Your task to perform on an android device: turn notification dots off Image 0: 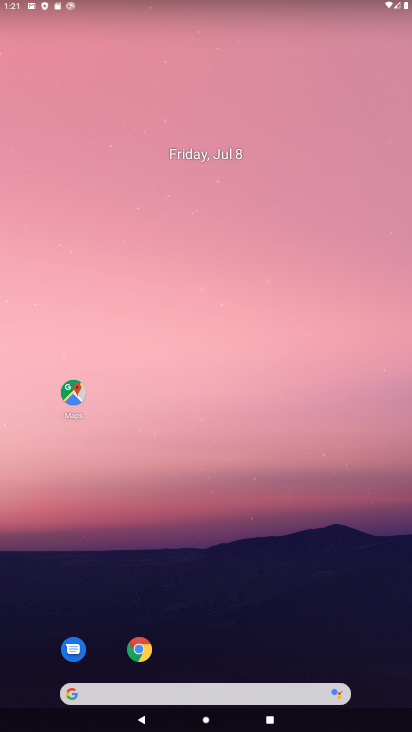
Step 0: drag from (292, 600) to (263, 27)
Your task to perform on an android device: turn notification dots off Image 1: 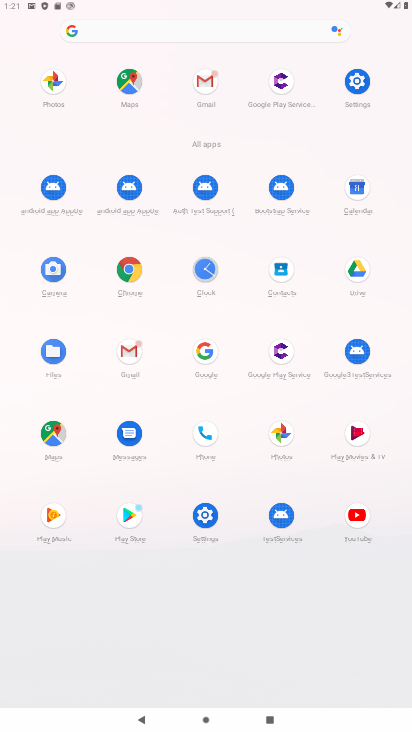
Step 1: click (352, 83)
Your task to perform on an android device: turn notification dots off Image 2: 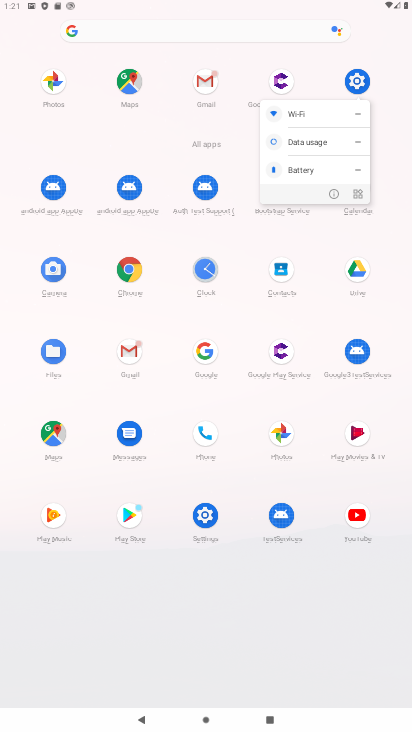
Step 2: click (362, 78)
Your task to perform on an android device: turn notification dots off Image 3: 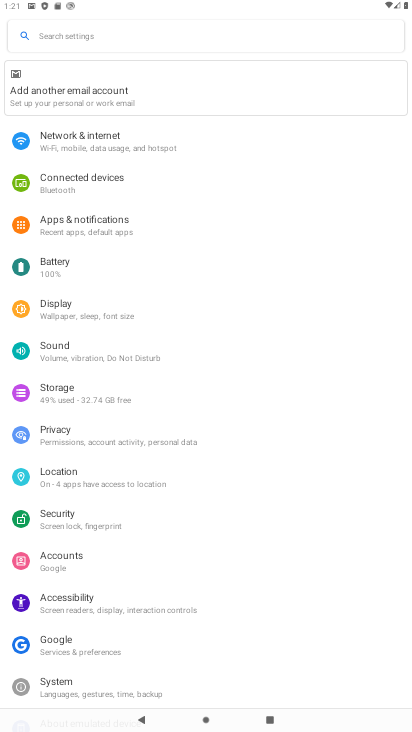
Step 3: click (94, 227)
Your task to perform on an android device: turn notification dots off Image 4: 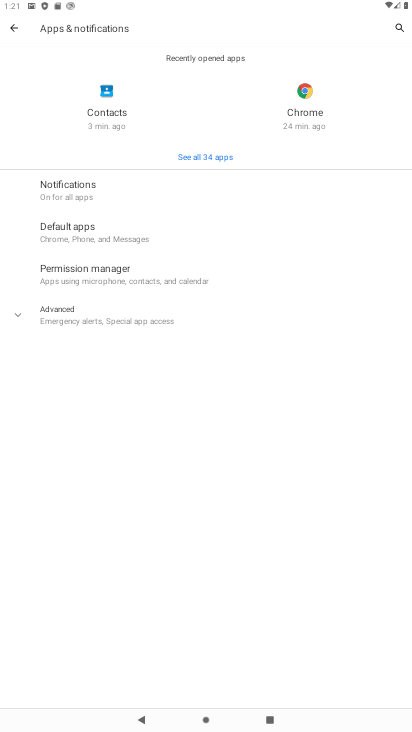
Step 4: click (82, 187)
Your task to perform on an android device: turn notification dots off Image 5: 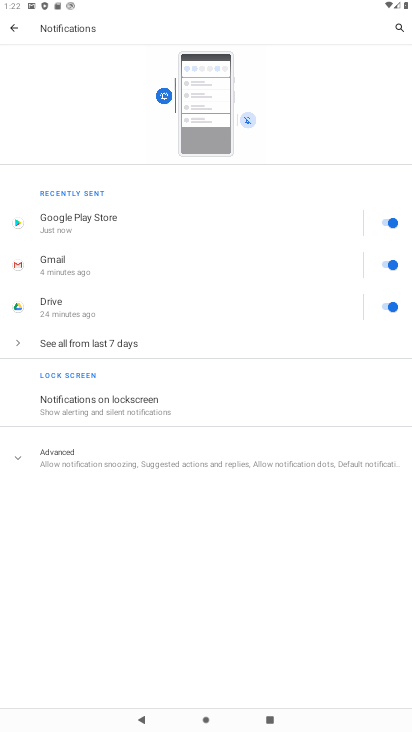
Step 5: click (61, 452)
Your task to perform on an android device: turn notification dots off Image 6: 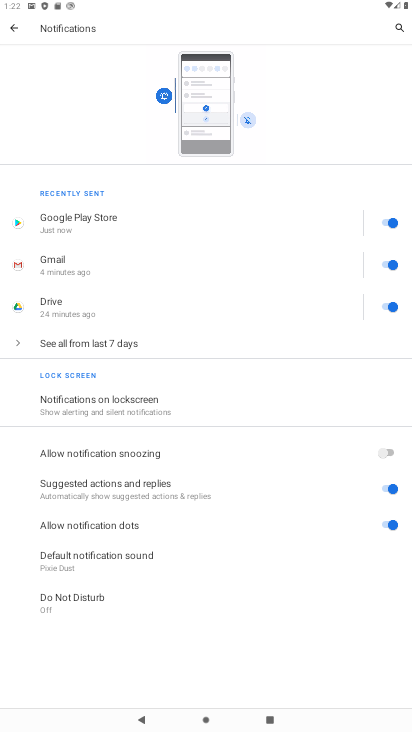
Step 6: click (384, 521)
Your task to perform on an android device: turn notification dots off Image 7: 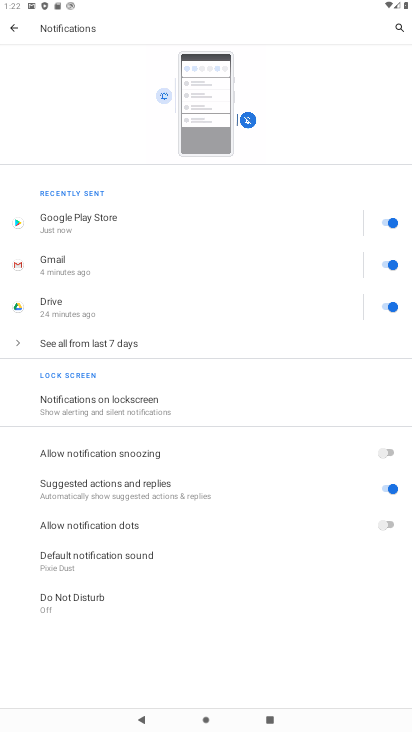
Step 7: task complete